Your task to perform on an android device: Go to ESPN.com Image 0: 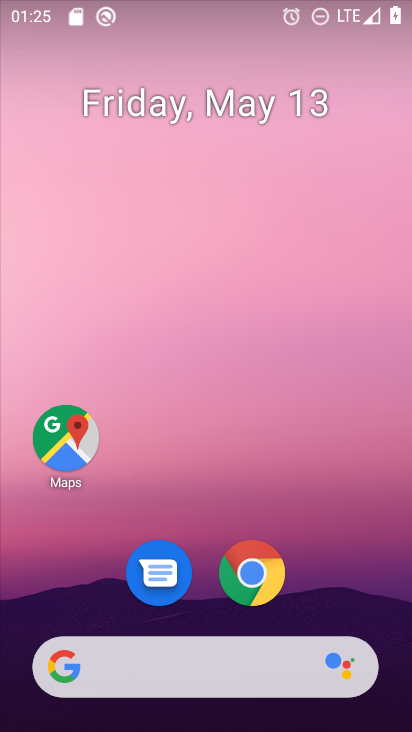
Step 0: click (228, 654)
Your task to perform on an android device: Go to ESPN.com Image 1: 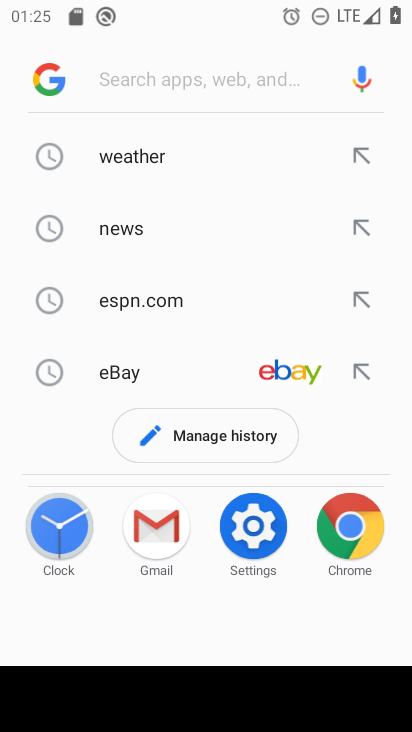
Step 1: type "espn.com"
Your task to perform on an android device: Go to ESPN.com Image 2: 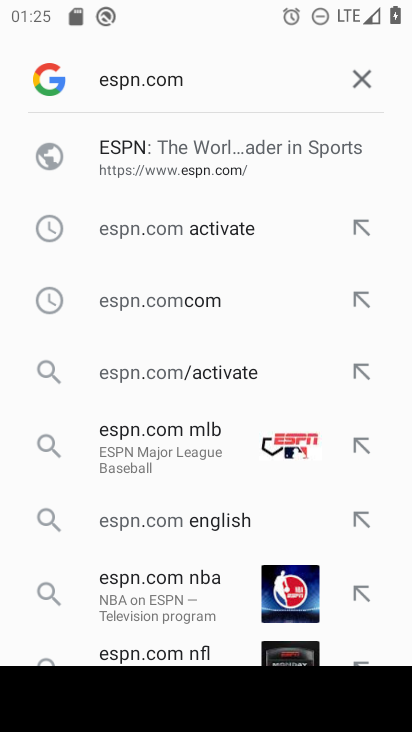
Step 2: click (257, 160)
Your task to perform on an android device: Go to ESPN.com Image 3: 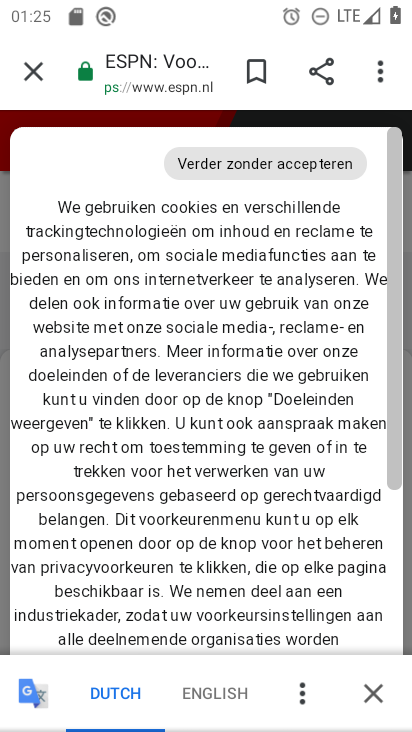
Step 3: task complete